Your task to perform on an android device: Open the calendar and show me this week's events? Image 0: 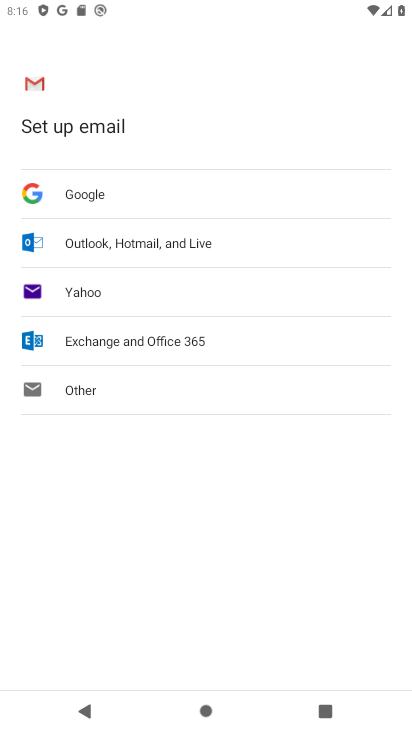
Step 0: drag from (267, 695) to (208, 300)
Your task to perform on an android device: Open the calendar and show me this week's events? Image 1: 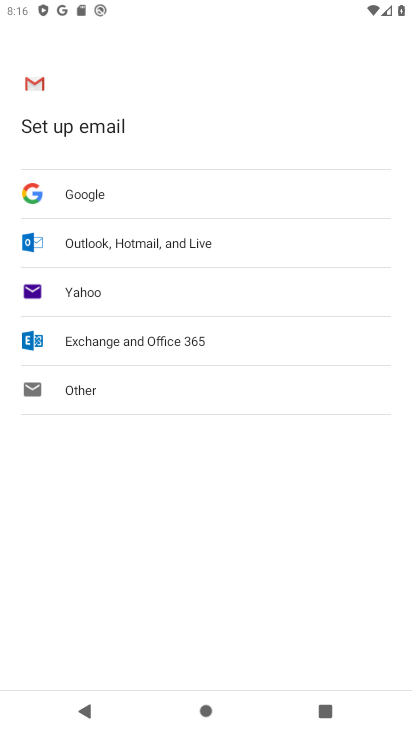
Step 1: press back button
Your task to perform on an android device: Open the calendar and show me this week's events? Image 2: 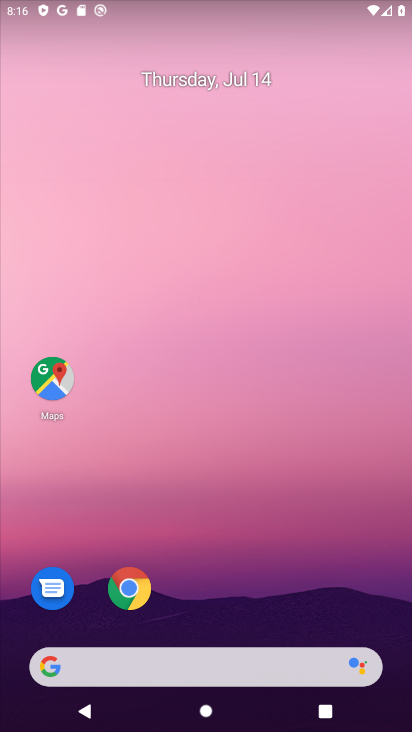
Step 2: drag from (200, 399) to (200, 247)
Your task to perform on an android device: Open the calendar and show me this week's events? Image 3: 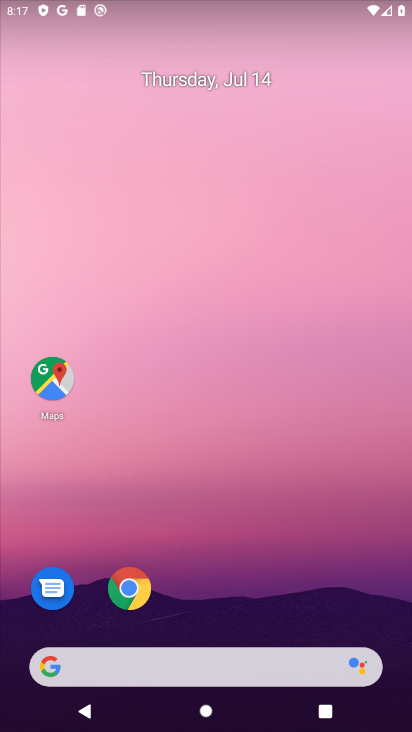
Step 3: drag from (250, 302) to (255, 33)
Your task to perform on an android device: Open the calendar and show me this week's events? Image 4: 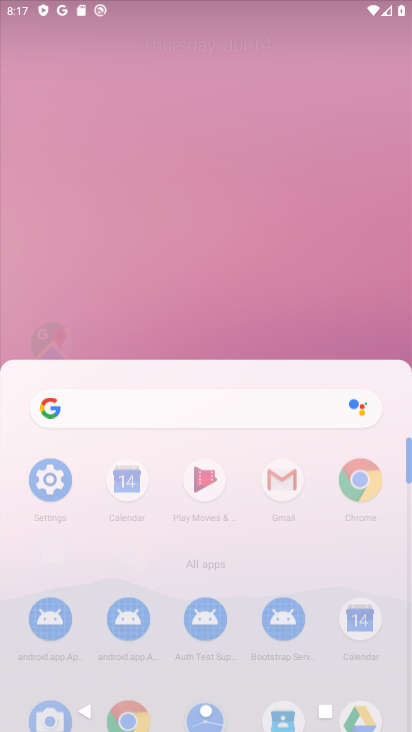
Step 4: drag from (219, 509) to (198, 201)
Your task to perform on an android device: Open the calendar and show me this week's events? Image 5: 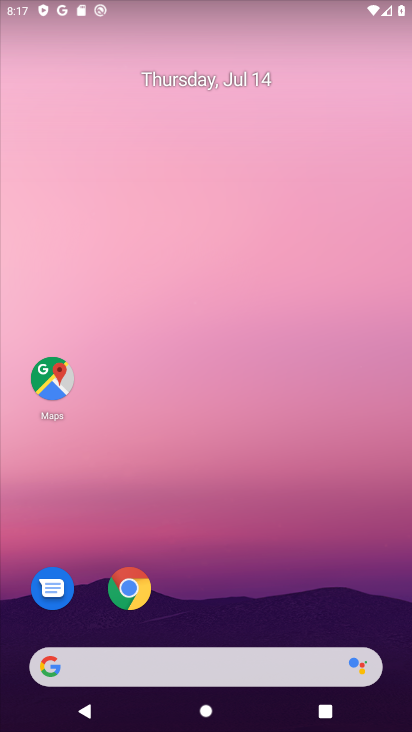
Step 5: drag from (281, 581) to (356, 88)
Your task to perform on an android device: Open the calendar and show me this week's events? Image 6: 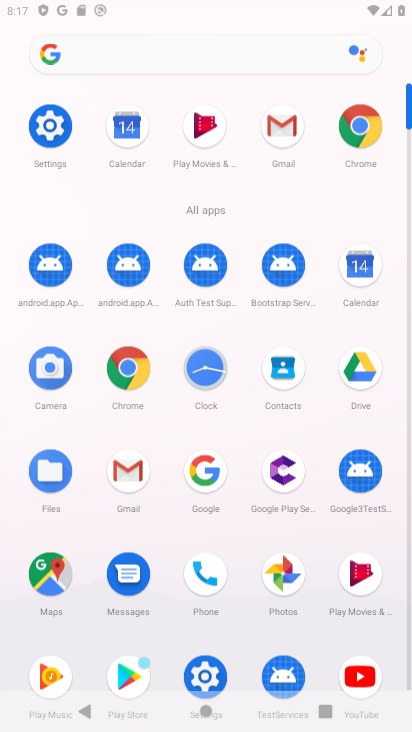
Step 6: drag from (260, 647) to (272, 205)
Your task to perform on an android device: Open the calendar and show me this week's events? Image 7: 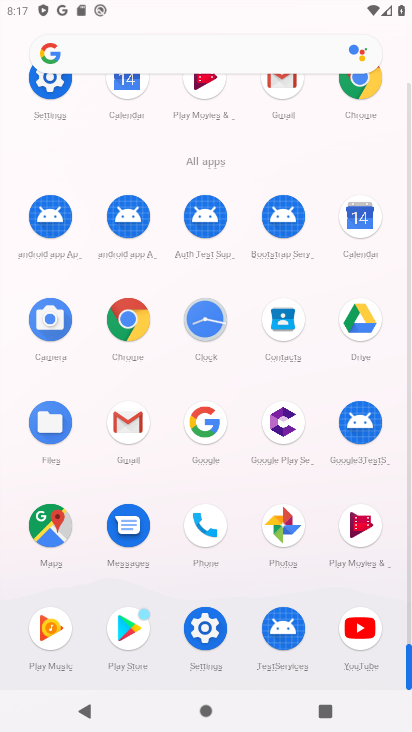
Step 7: click (336, 232)
Your task to perform on an android device: Open the calendar and show me this week's events? Image 8: 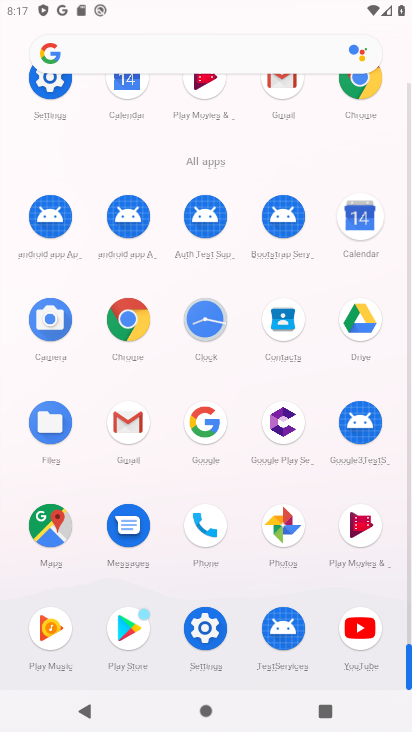
Step 8: click (340, 235)
Your task to perform on an android device: Open the calendar and show me this week's events? Image 9: 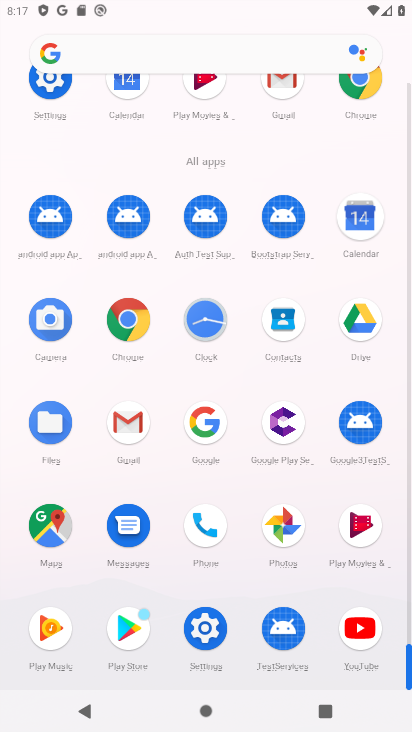
Step 9: click (364, 218)
Your task to perform on an android device: Open the calendar and show me this week's events? Image 10: 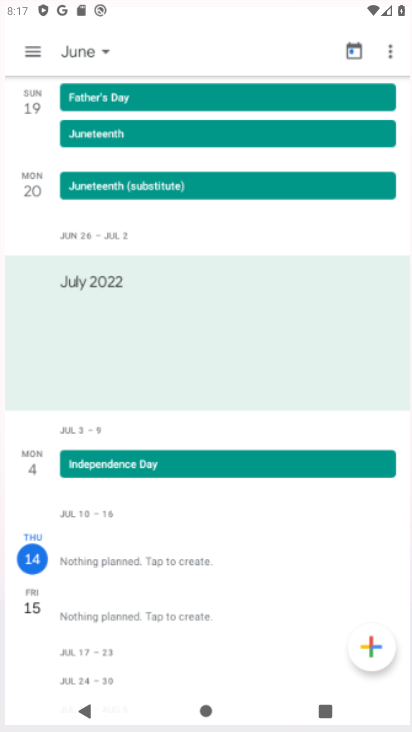
Step 10: click (364, 218)
Your task to perform on an android device: Open the calendar and show me this week's events? Image 11: 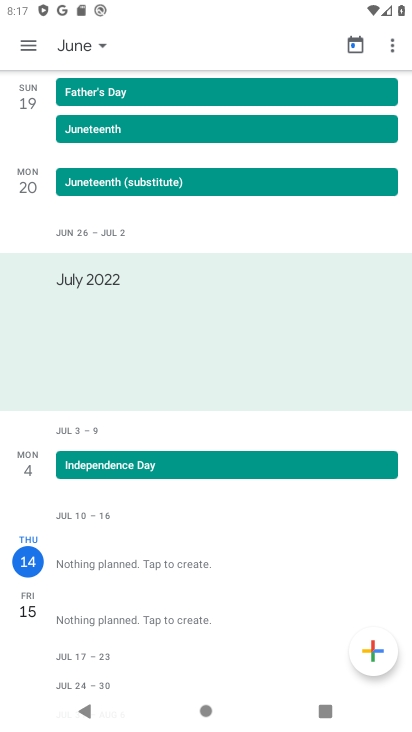
Step 11: drag from (290, 142) to (289, 520)
Your task to perform on an android device: Open the calendar and show me this week's events? Image 12: 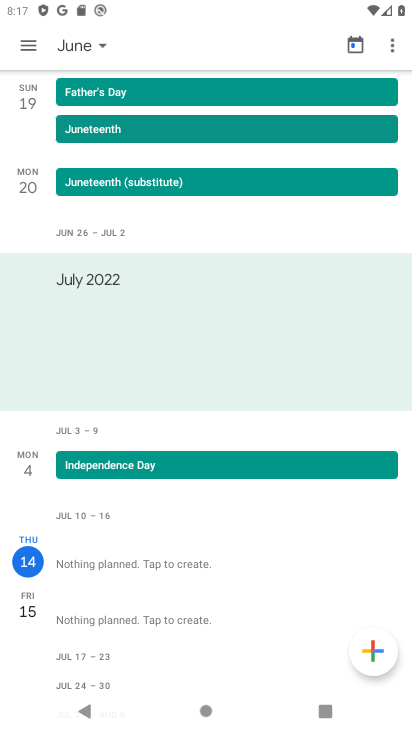
Step 12: drag from (188, 175) to (250, 509)
Your task to perform on an android device: Open the calendar and show me this week's events? Image 13: 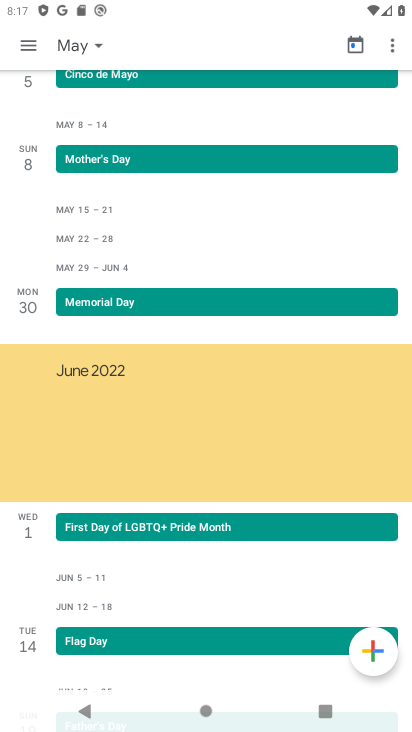
Step 13: drag from (200, 175) to (244, 494)
Your task to perform on an android device: Open the calendar and show me this week's events? Image 14: 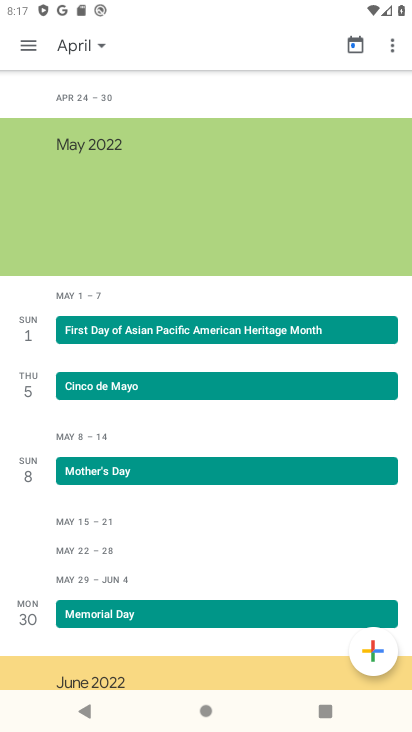
Step 14: drag from (178, 152) to (240, 516)
Your task to perform on an android device: Open the calendar and show me this week's events? Image 15: 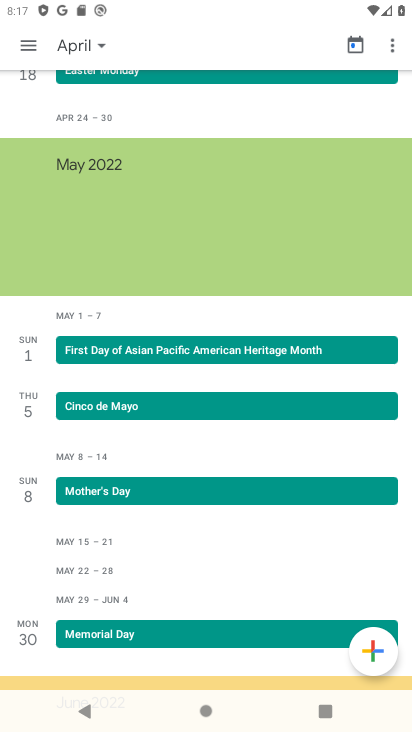
Step 15: drag from (161, 126) to (202, 438)
Your task to perform on an android device: Open the calendar and show me this week's events? Image 16: 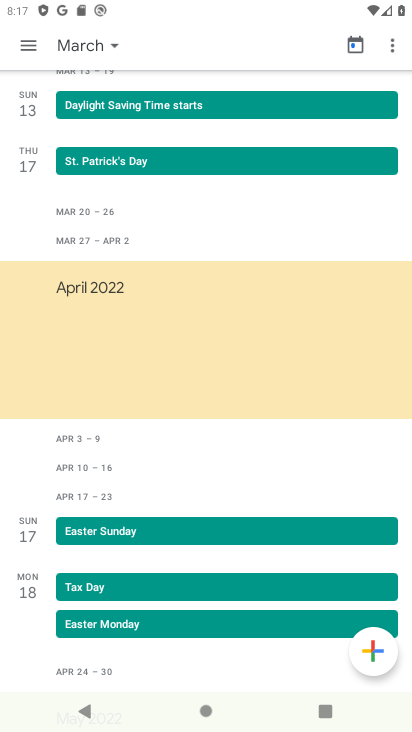
Step 16: drag from (148, 163) to (190, 374)
Your task to perform on an android device: Open the calendar and show me this week's events? Image 17: 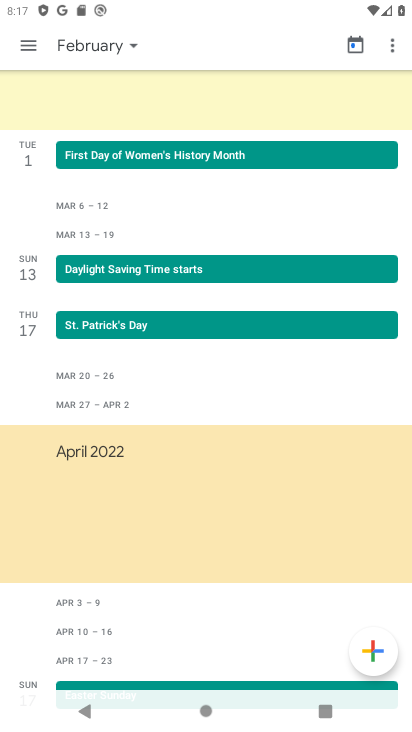
Step 17: click (120, 60)
Your task to perform on an android device: Open the calendar and show me this week's events? Image 18: 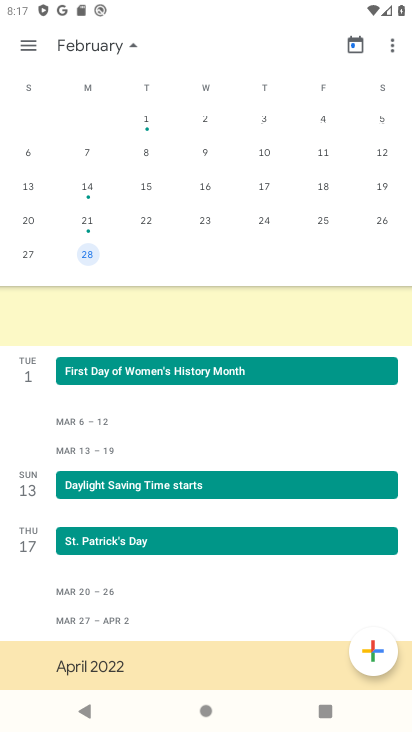
Step 18: drag from (132, 45) to (165, 279)
Your task to perform on an android device: Open the calendar and show me this week's events? Image 19: 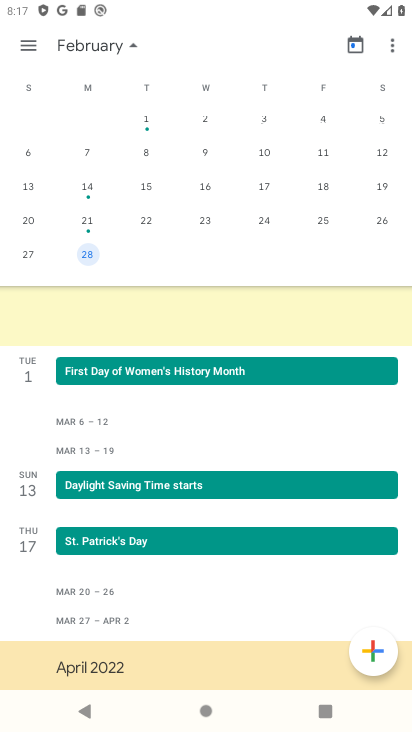
Step 19: drag from (163, 162) to (184, 310)
Your task to perform on an android device: Open the calendar and show me this week's events? Image 20: 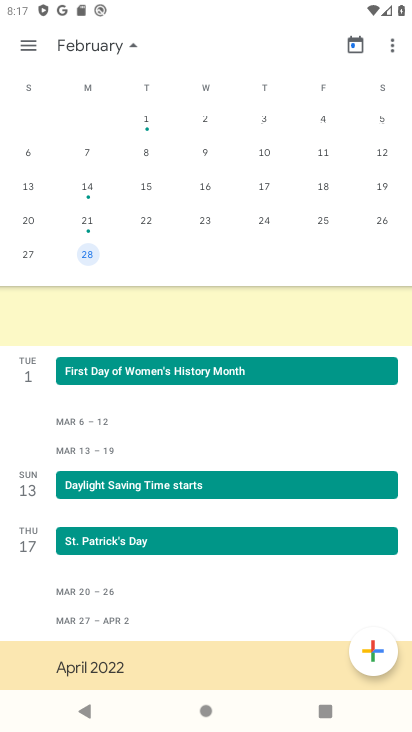
Step 20: drag from (358, 181) to (7, 207)
Your task to perform on an android device: Open the calendar and show me this week's events? Image 21: 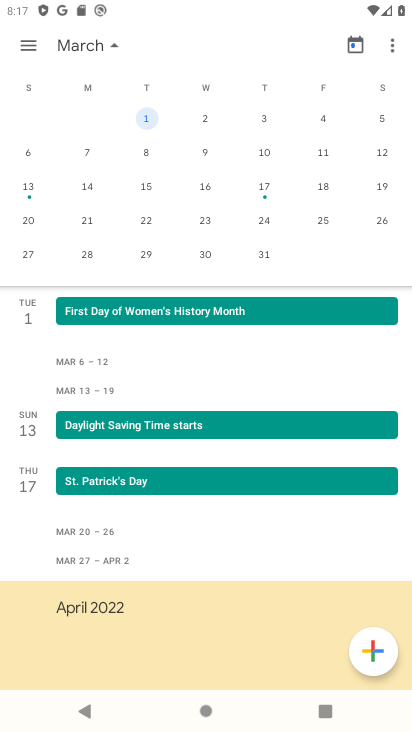
Step 21: drag from (278, 155) to (29, 216)
Your task to perform on an android device: Open the calendar and show me this week's events? Image 22: 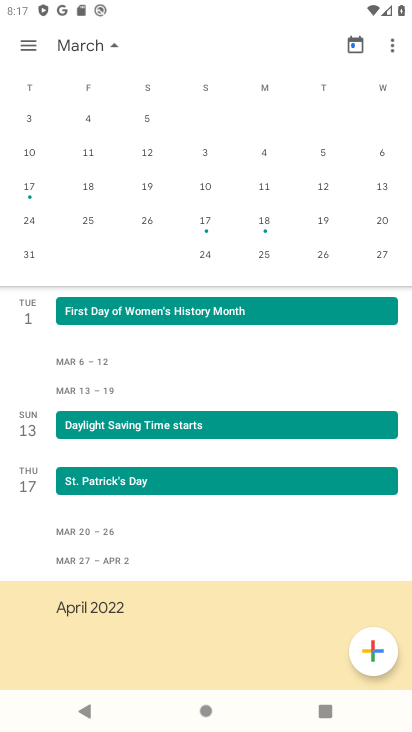
Step 22: drag from (361, 183) to (173, 207)
Your task to perform on an android device: Open the calendar and show me this week's events? Image 23: 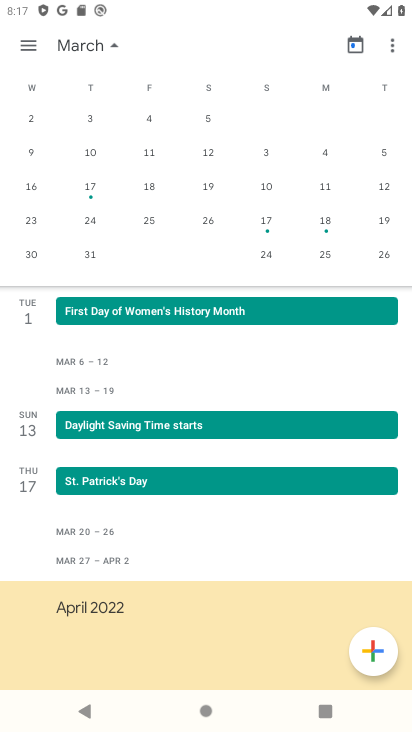
Step 23: drag from (307, 185) to (59, 216)
Your task to perform on an android device: Open the calendar and show me this week's events? Image 24: 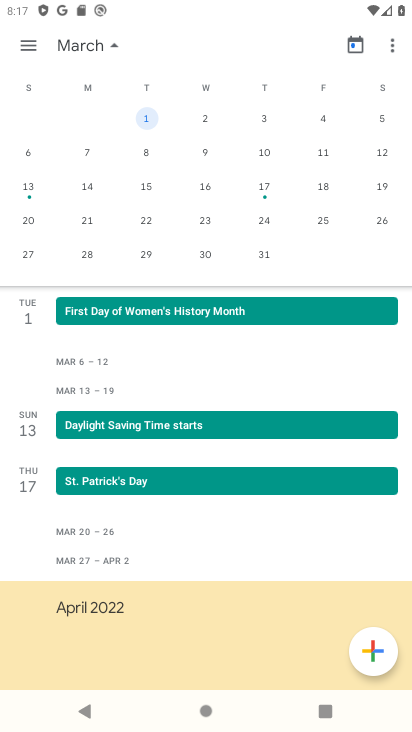
Step 24: drag from (201, 179) to (2, 203)
Your task to perform on an android device: Open the calendar and show me this week's events? Image 25: 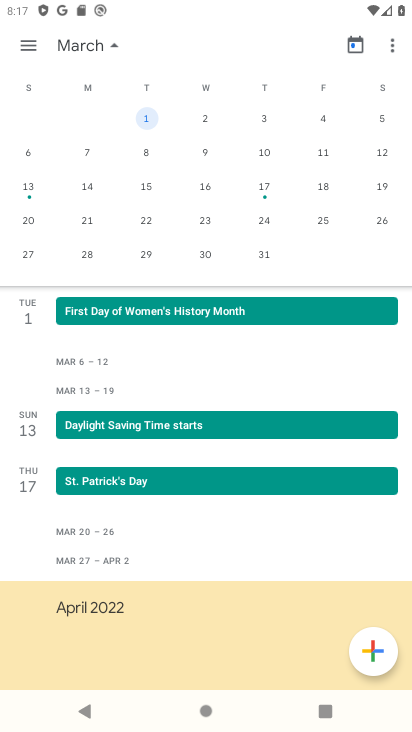
Step 25: drag from (241, 183) to (44, 207)
Your task to perform on an android device: Open the calendar and show me this week's events? Image 26: 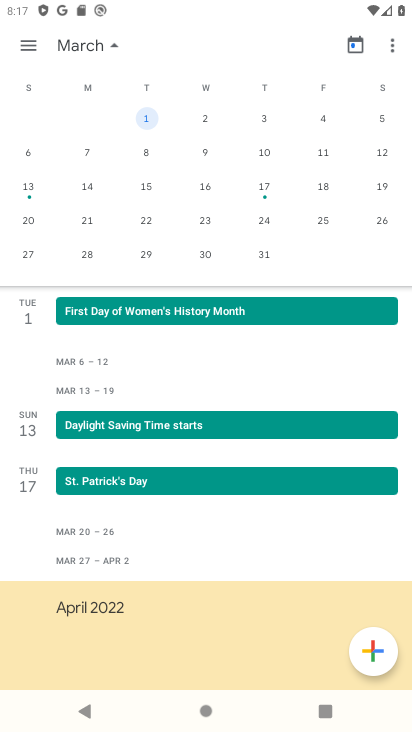
Step 26: drag from (250, 177) to (94, 202)
Your task to perform on an android device: Open the calendar and show me this week's events? Image 27: 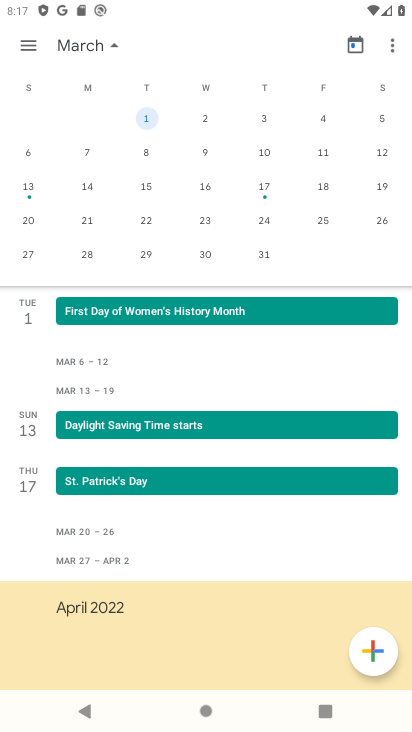
Step 27: drag from (229, 193) to (125, 202)
Your task to perform on an android device: Open the calendar and show me this week's events? Image 28: 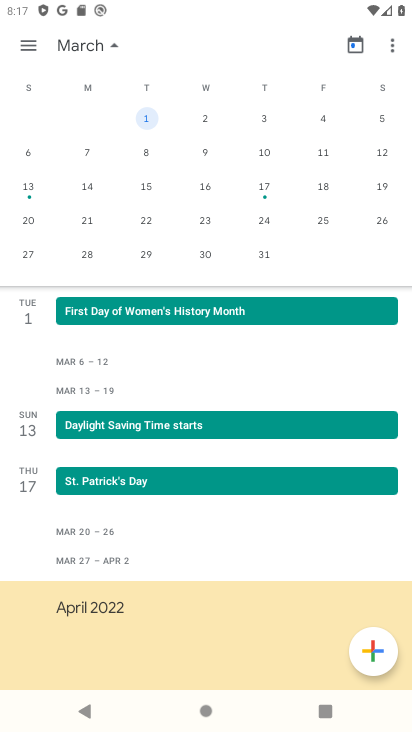
Step 28: drag from (268, 163) to (4, 183)
Your task to perform on an android device: Open the calendar and show me this week's events? Image 29: 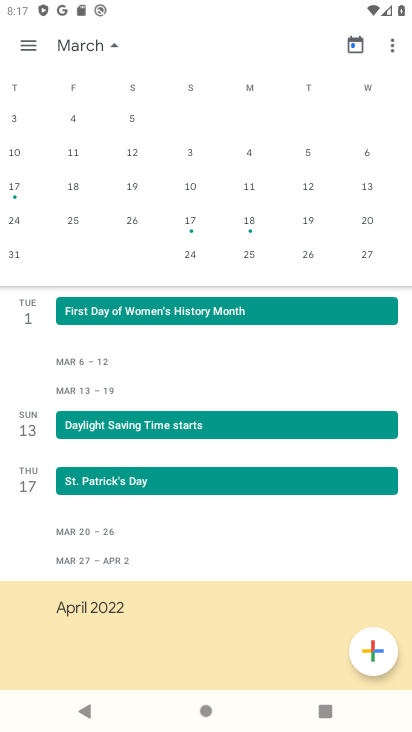
Step 29: drag from (220, 193) to (1, 127)
Your task to perform on an android device: Open the calendar and show me this week's events? Image 30: 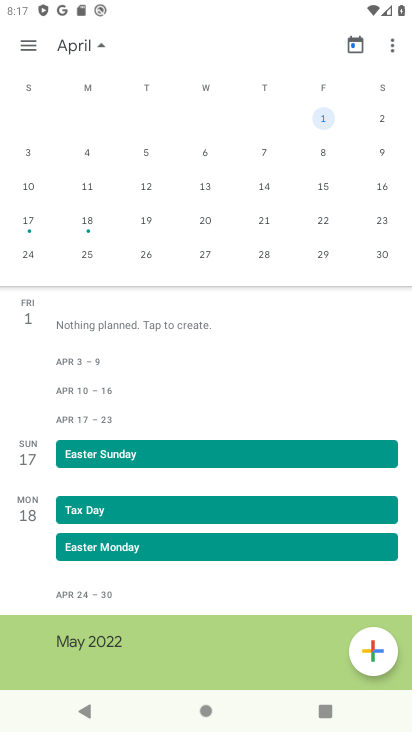
Step 30: drag from (254, 182) to (4, 155)
Your task to perform on an android device: Open the calendar and show me this week's events? Image 31: 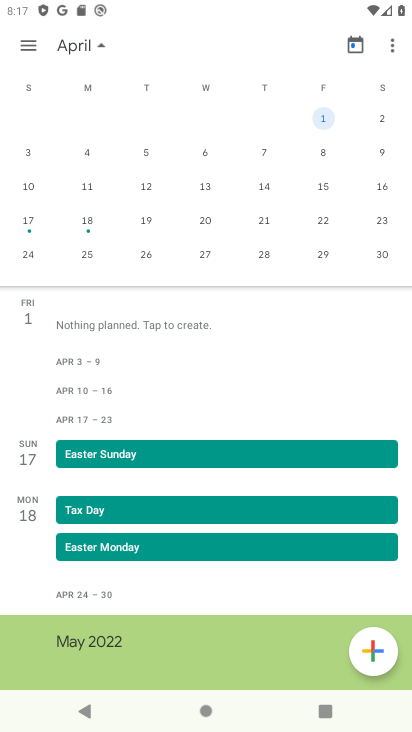
Step 31: drag from (311, 151) to (0, 169)
Your task to perform on an android device: Open the calendar and show me this week's events? Image 32: 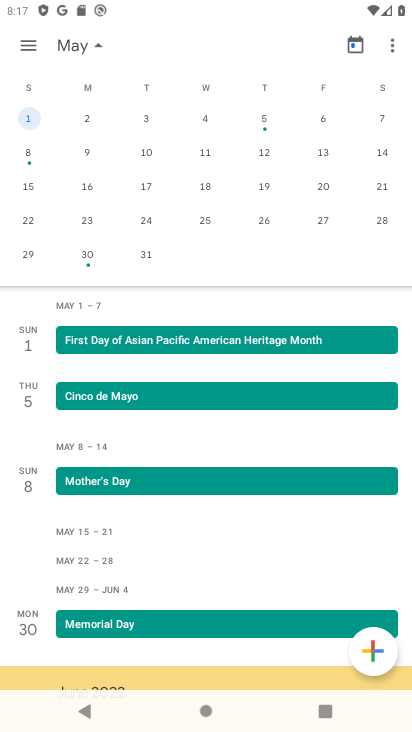
Step 32: drag from (302, 172) to (48, 217)
Your task to perform on an android device: Open the calendar and show me this week's events? Image 33: 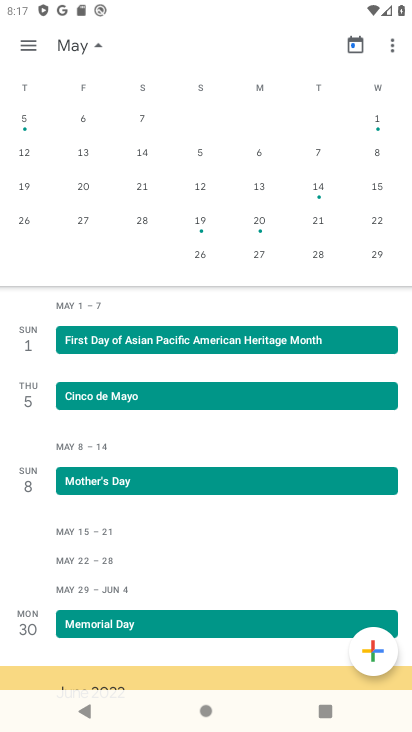
Step 33: drag from (309, 170) to (66, 221)
Your task to perform on an android device: Open the calendar and show me this week's events? Image 34: 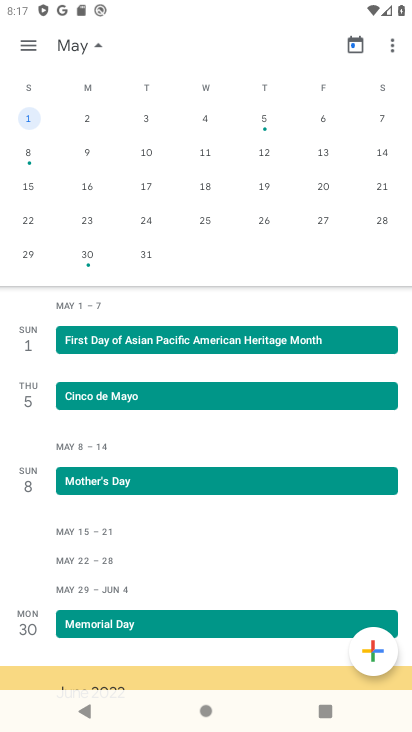
Step 34: drag from (285, 178) to (6, 192)
Your task to perform on an android device: Open the calendar and show me this week's events? Image 35: 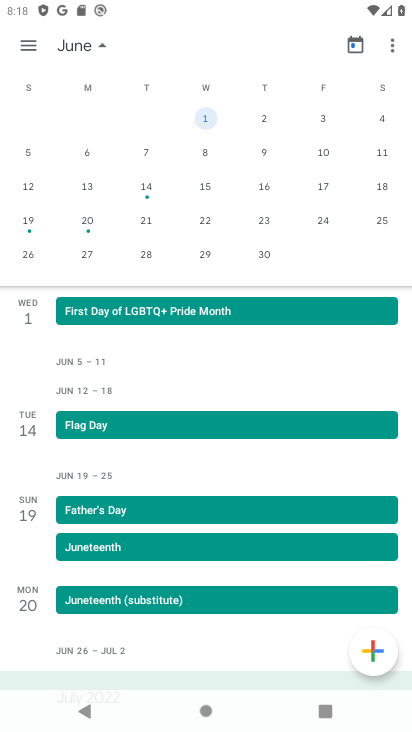
Step 35: drag from (344, 202) to (3, 251)
Your task to perform on an android device: Open the calendar and show me this week's events? Image 36: 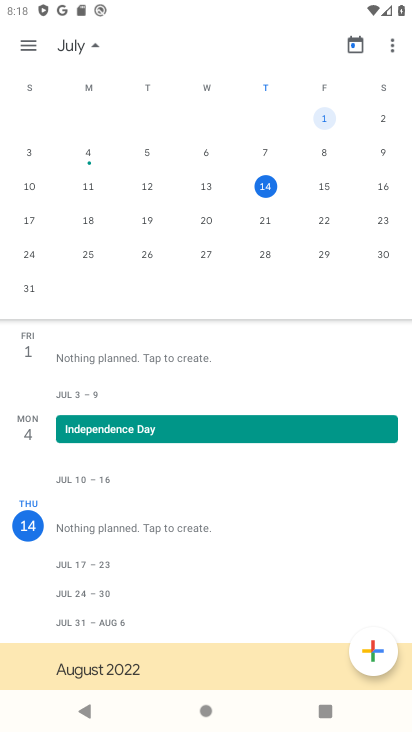
Step 36: drag from (246, 173) to (0, 218)
Your task to perform on an android device: Open the calendar and show me this week's events? Image 37: 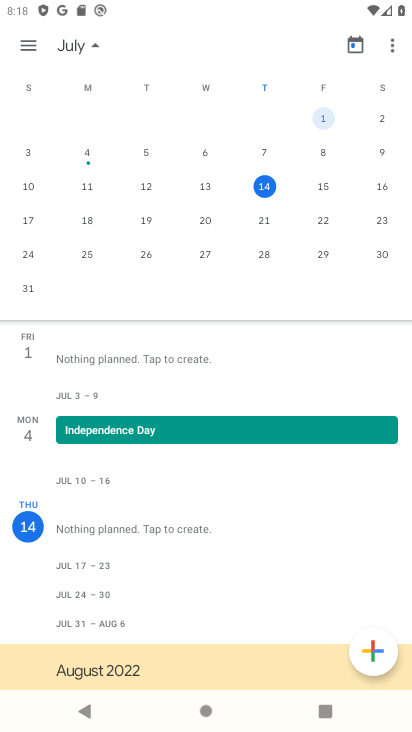
Step 37: click (319, 189)
Your task to perform on an android device: Open the calendar and show me this week's events? Image 38: 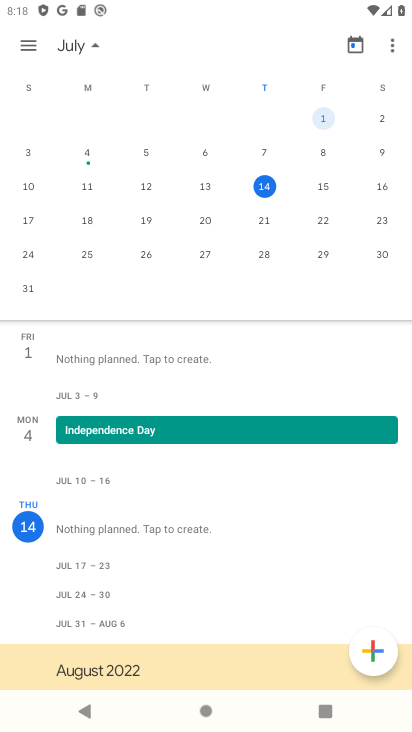
Step 38: click (320, 188)
Your task to perform on an android device: Open the calendar and show me this week's events? Image 39: 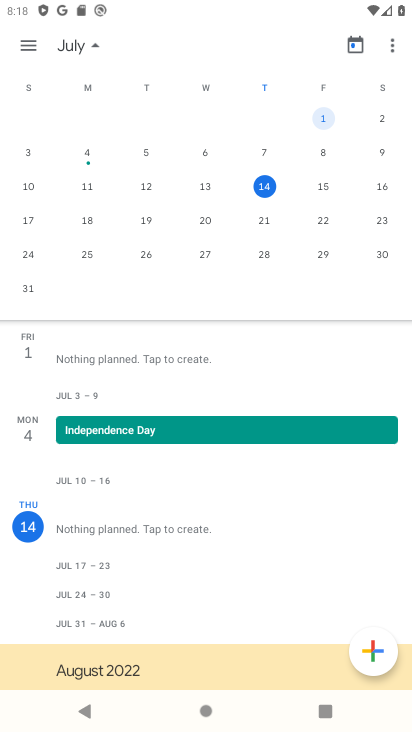
Step 39: click (320, 188)
Your task to perform on an android device: Open the calendar and show me this week's events? Image 40: 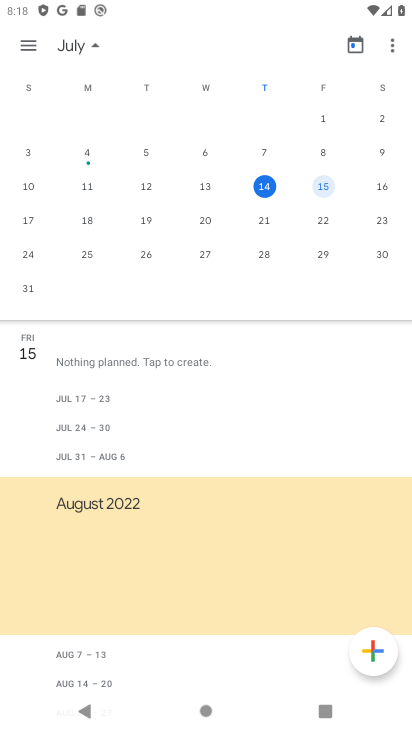
Step 40: click (320, 188)
Your task to perform on an android device: Open the calendar and show me this week's events? Image 41: 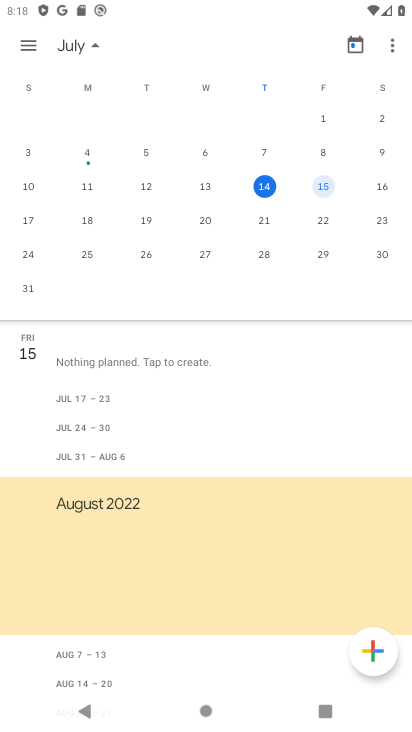
Step 41: task complete